Your task to perform on an android device: Open Google Chrome Image 0: 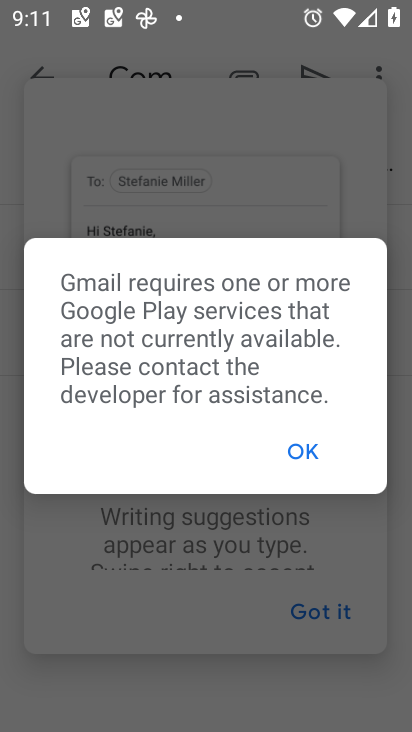
Step 0: press home button
Your task to perform on an android device: Open Google Chrome Image 1: 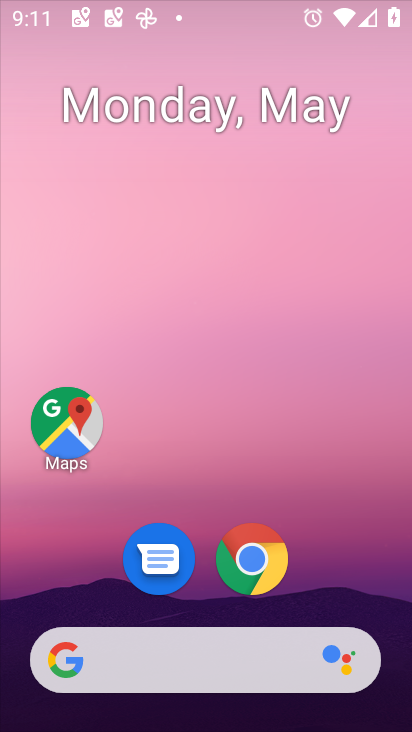
Step 1: drag from (385, 616) to (265, 54)
Your task to perform on an android device: Open Google Chrome Image 2: 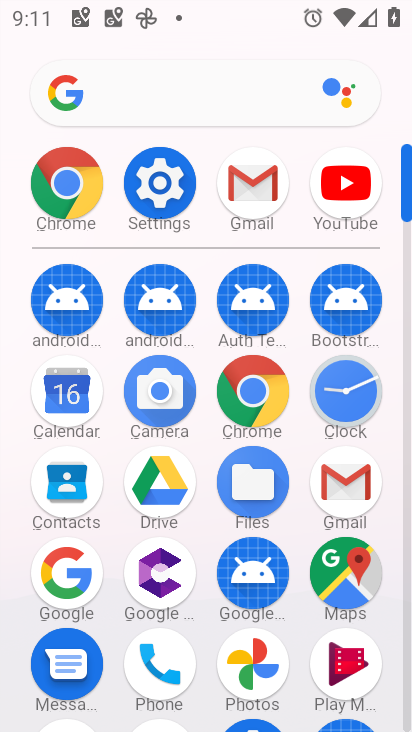
Step 2: click (255, 405)
Your task to perform on an android device: Open Google Chrome Image 3: 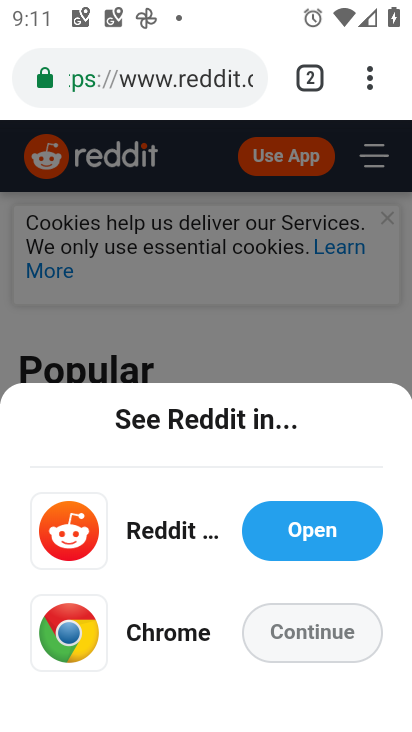
Step 3: task complete